Your task to perform on an android device: toggle location history Image 0: 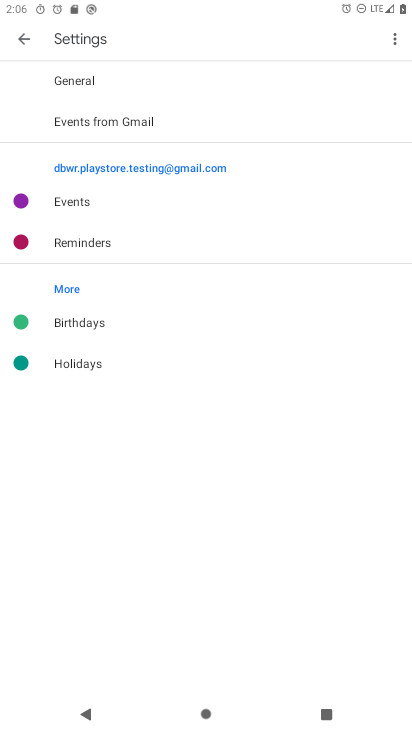
Step 0: press home button
Your task to perform on an android device: toggle location history Image 1: 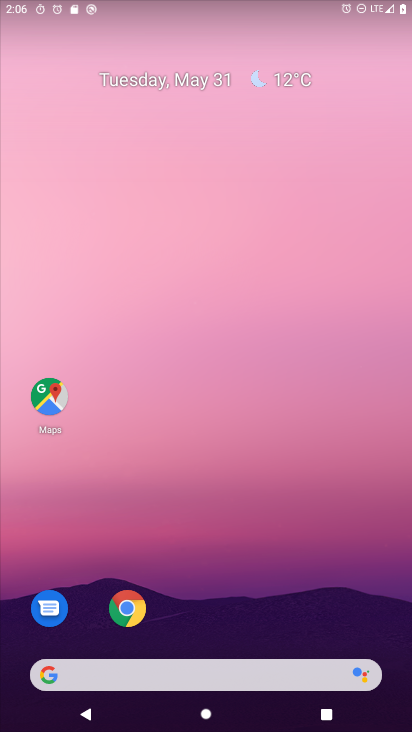
Step 1: click (47, 402)
Your task to perform on an android device: toggle location history Image 2: 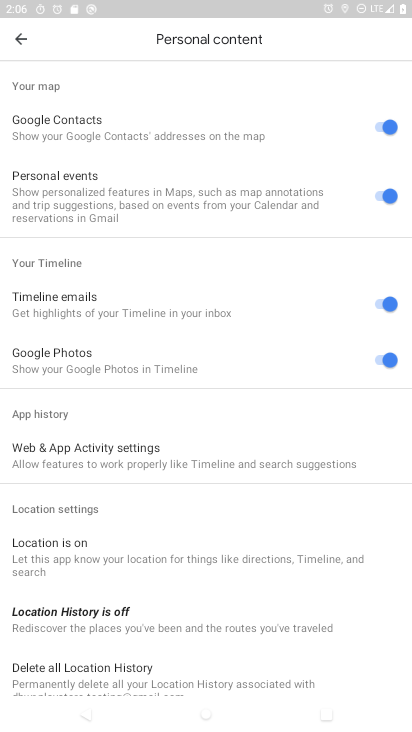
Step 2: click (49, 617)
Your task to perform on an android device: toggle location history Image 3: 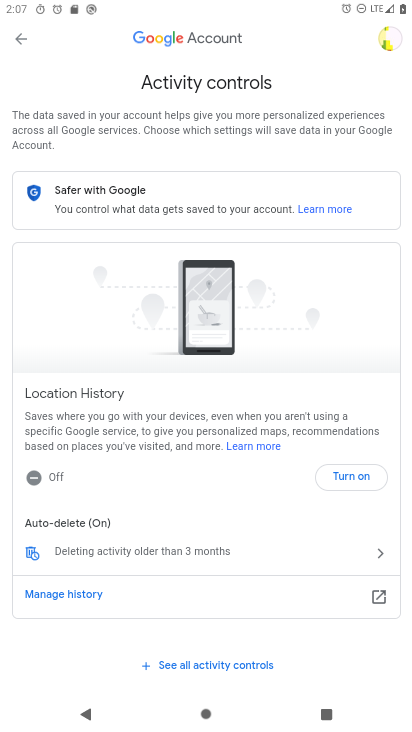
Step 3: click (358, 477)
Your task to perform on an android device: toggle location history Image 4: 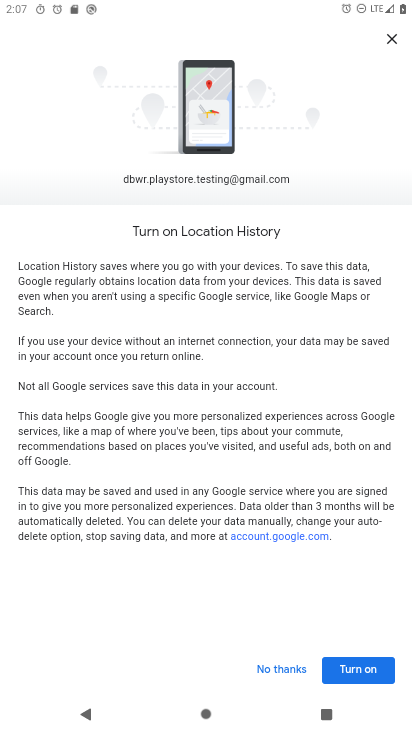
Step 4: click (354, 669)
Your task to perform on an android device: toggle location history Image 5: 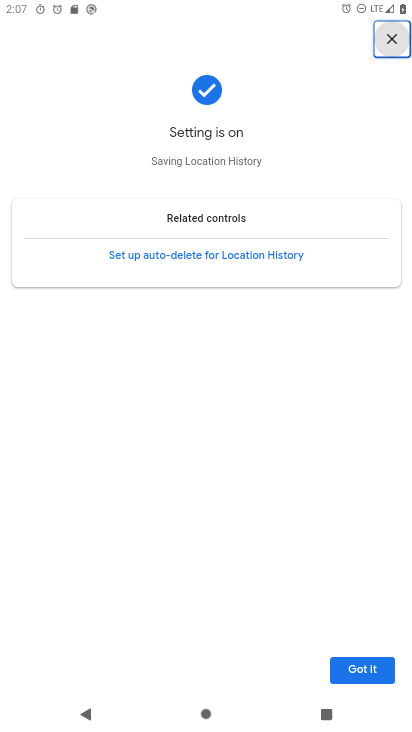
Step 5: click (349, 669)
Your task to perform on an android device: toggle location history Image 6: 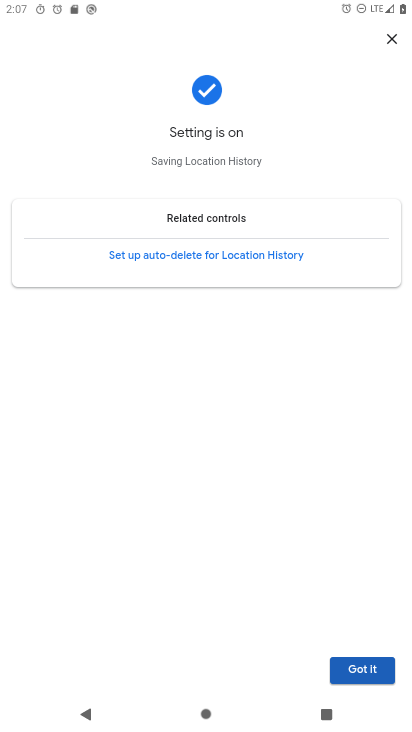
Step 6: click (361, 667)
Your task to perform on an android device: toggle location history Image 7: 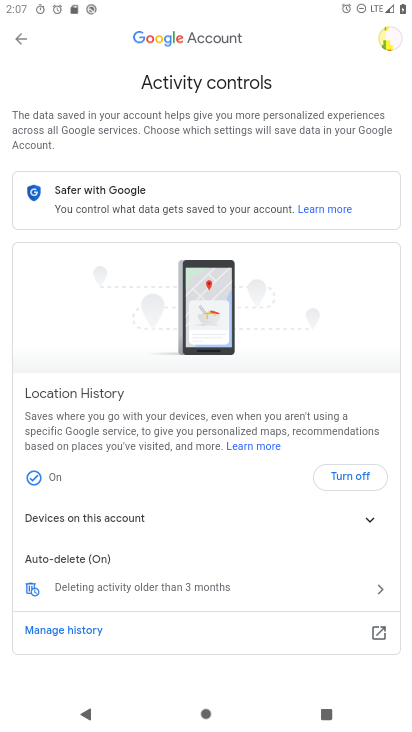
Step 7: task complete